Your task to perform on an android device: turn on translation in the chrome app Image 0: 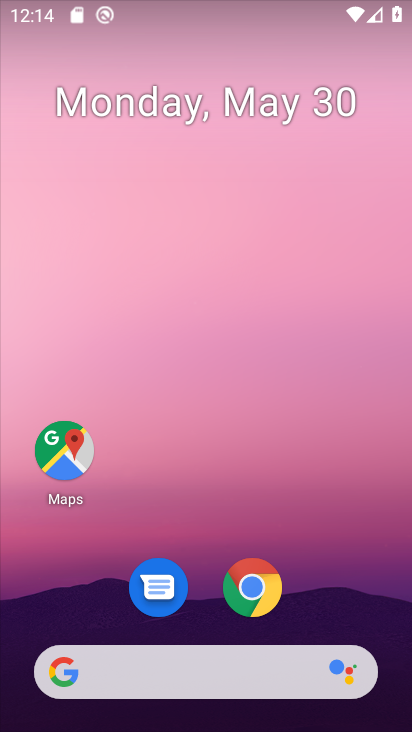
Step 0: click (255, 596)
Your task to perform on an android device: turn on translation in the chrome app Image 1: 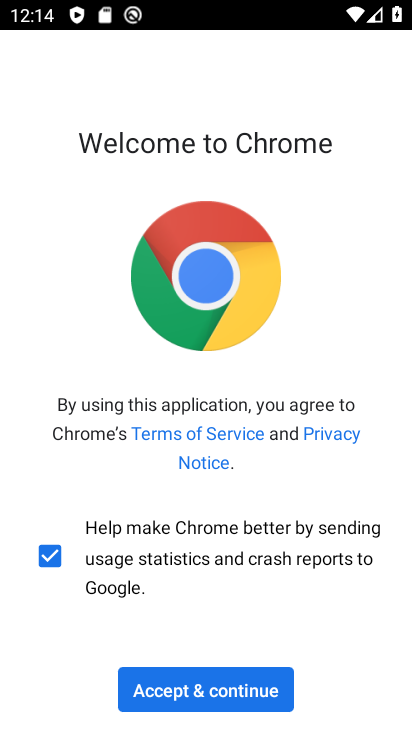
Step 1: click (209, 700)
Your task to perform on an android device: turn on translation in the chrome app Image 2: 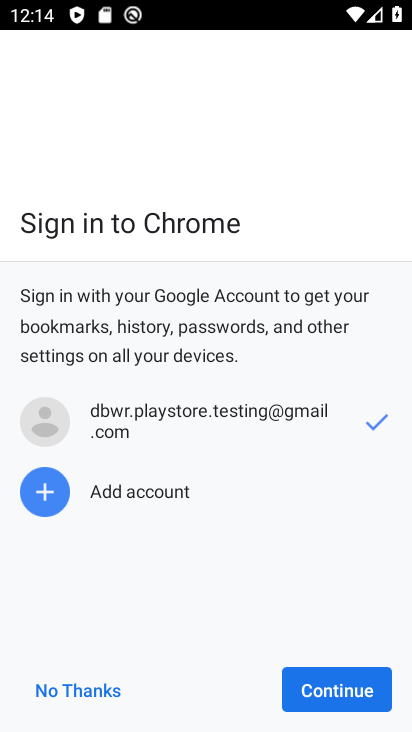
Step 2: click (319, 694)
Your task to perform on an android device: turn on translation in the chrome app Image 3: 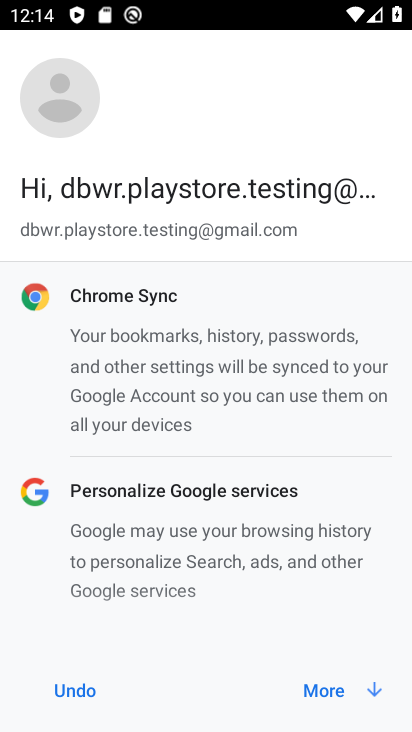
Step 3: click (319, 694)
Your task to perform on an android device: turn on translation in the chrome app Image 4: 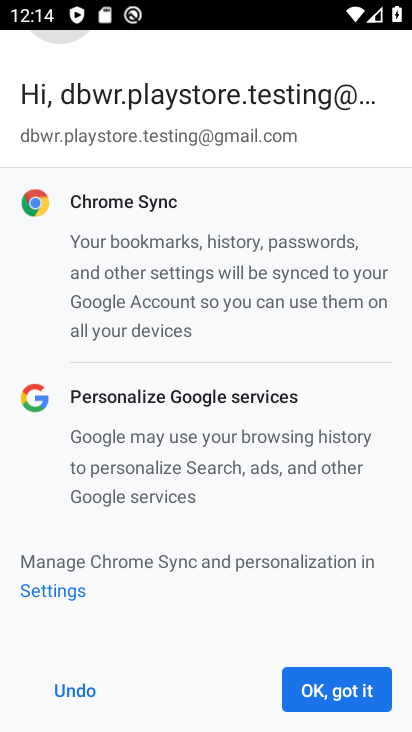
Step 4: click (319, 694)
Your task to perform on an android device: turn on translation in the chrome app Image 5: 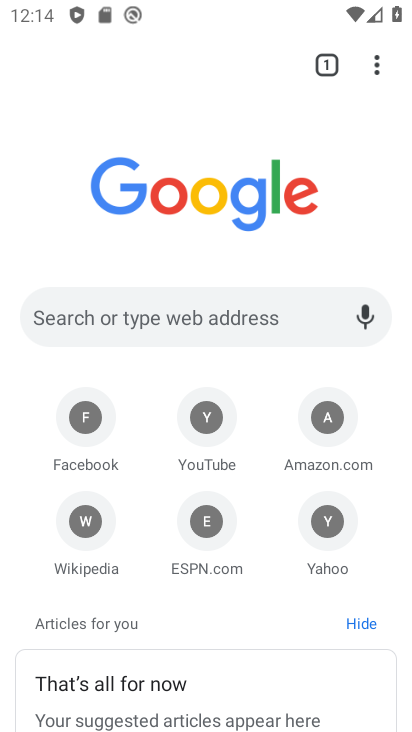
Step 5: click (367, 68)
Your task to perform on an android device: turn on translation in the chrome app Image 6: 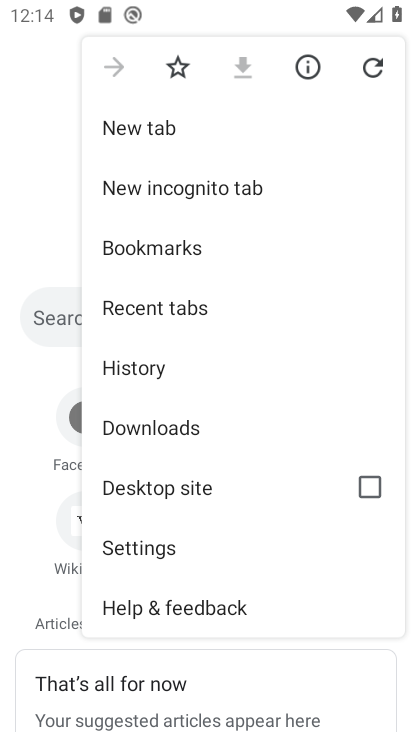
Step 6: click (184, 545)
Your task to perform on an android device: turn on translation in the chrome app Image 7: 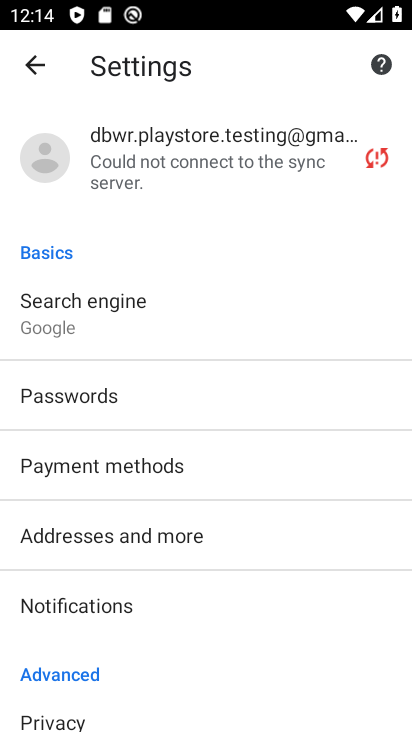
Step 7: drag from (201, 443) to (222, 136)
Your task to perform on an android device: turn on translation in the chrome app Image 8: 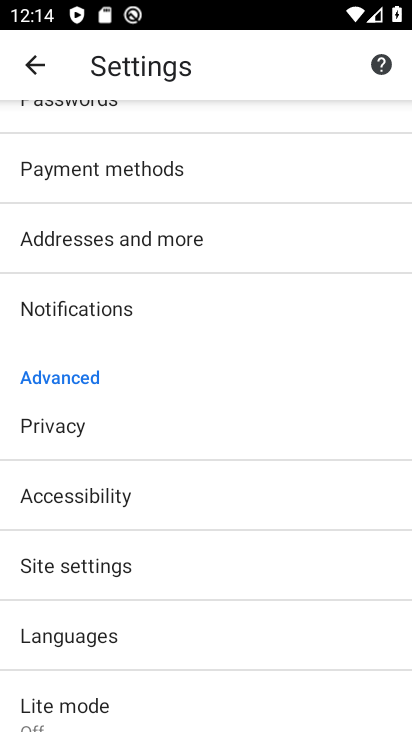
Step 8: click (93, 643)
Your task to perform on an android device: turn on translation in the chrome app Image 9: 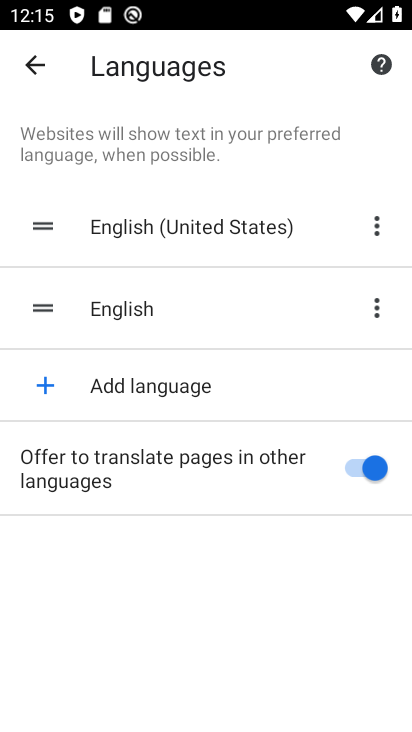
Step 9: task complete